Your task to perform on an android device: Show the shopping cart on ebay.com. Image 0: 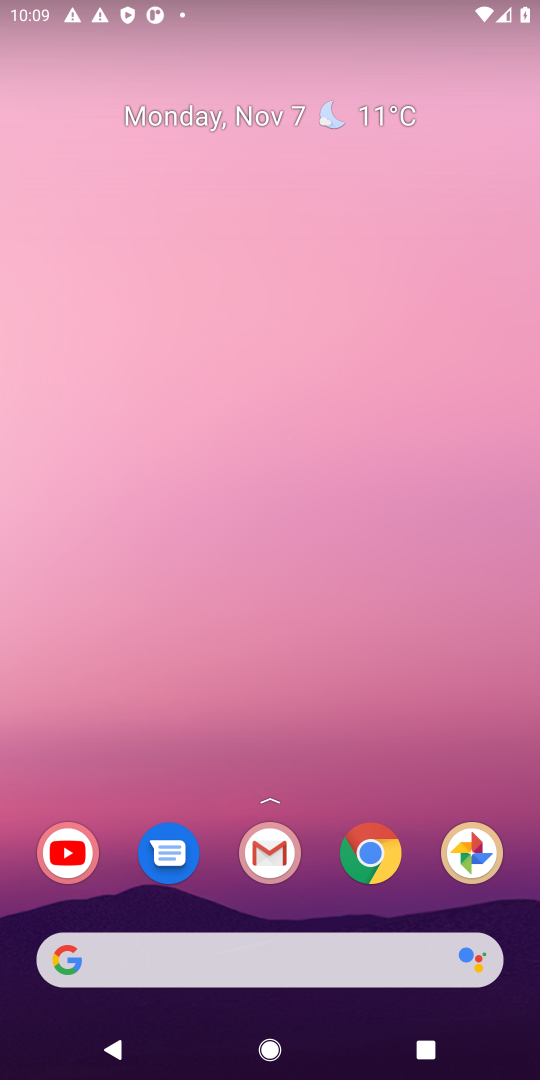
Step 0: click (262, 940)
Your task to perform on an android device: Show the shopping cart on ebay.com. Image 1: 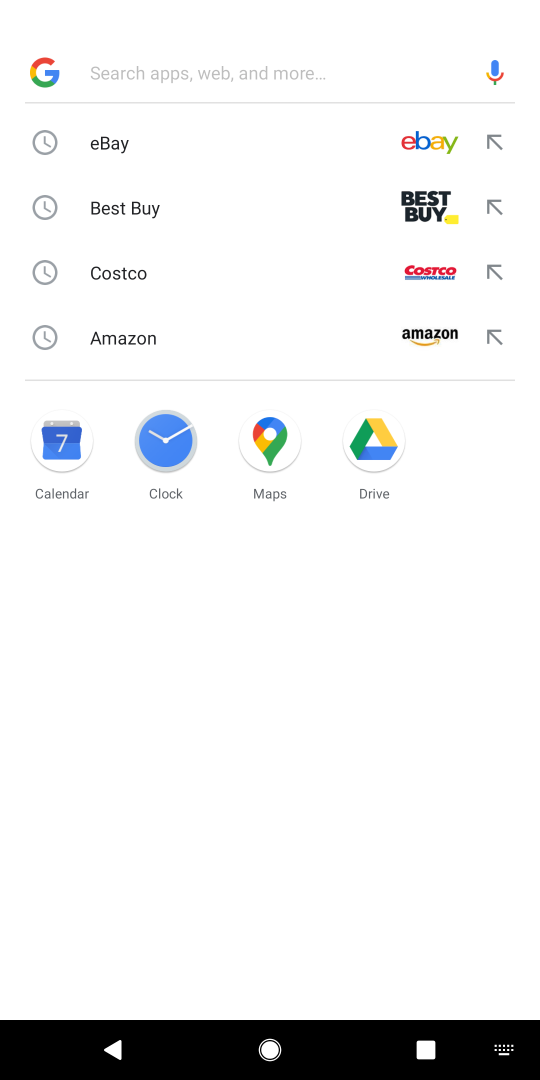
Step 1: click (211, 149)
Your task to perform on an android device: Show the shopping cart on ebay.com. Image 2: 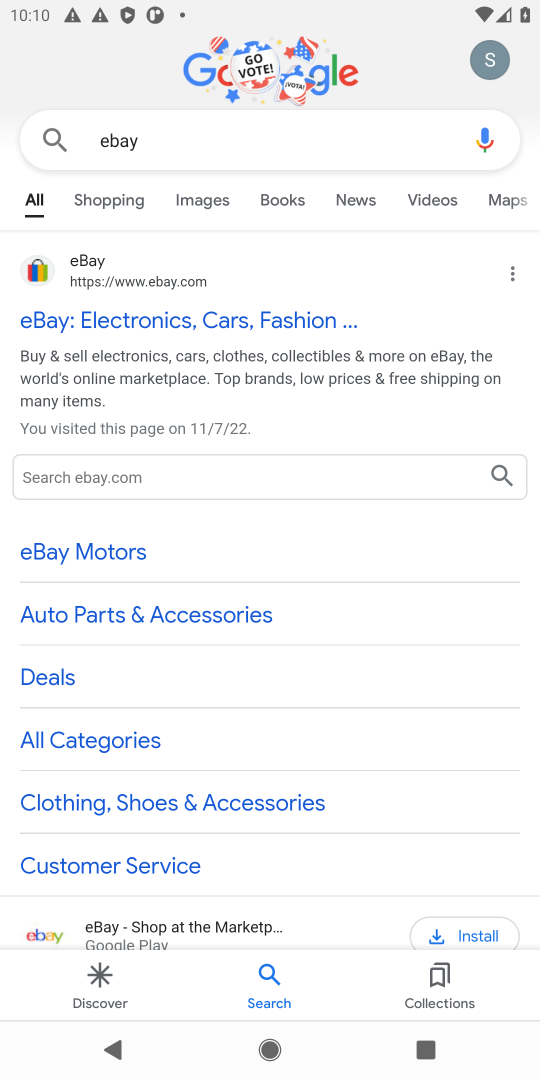
Step 2: click (9, 313)
Your task to perform on an android device: Show the shopping cart on ebay.com. Image 3: 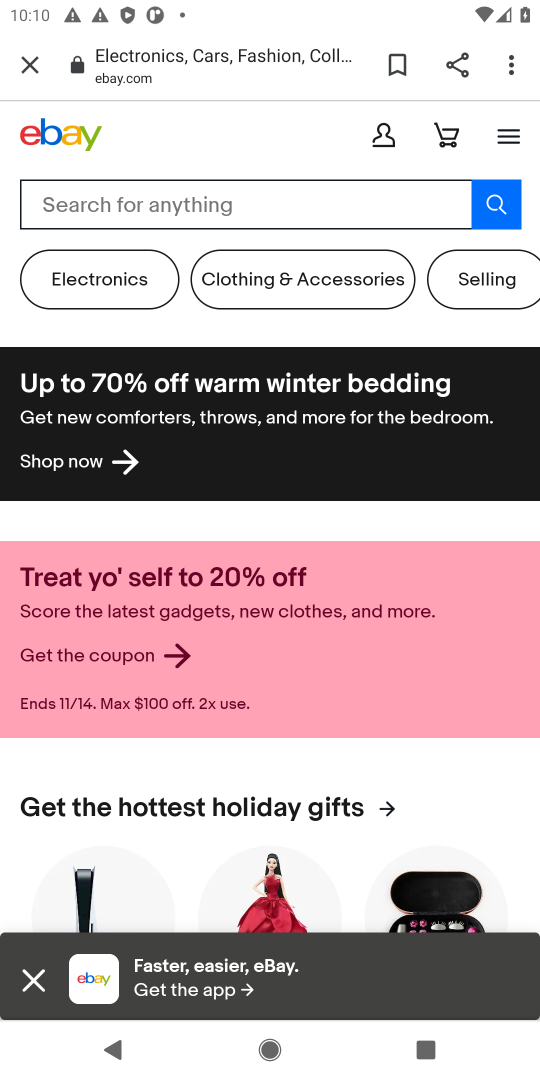
Step 3: click (421, 136)
Your task to perform on an android device: Show the shopping cart on ebay.com. Image 4: 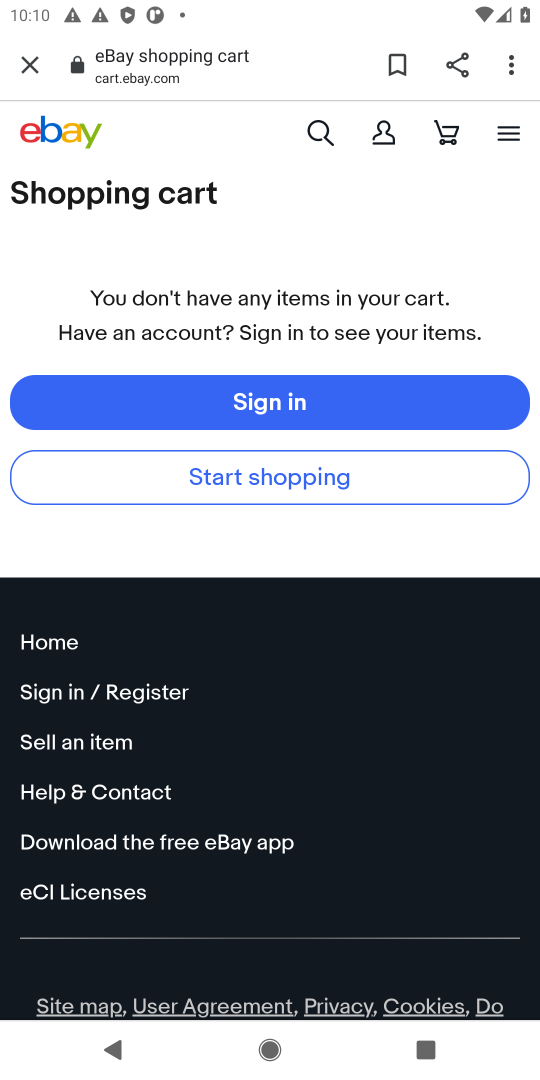
Step 4: task complete